Your task to perform on an android device: Open Wikipedia Image 0: 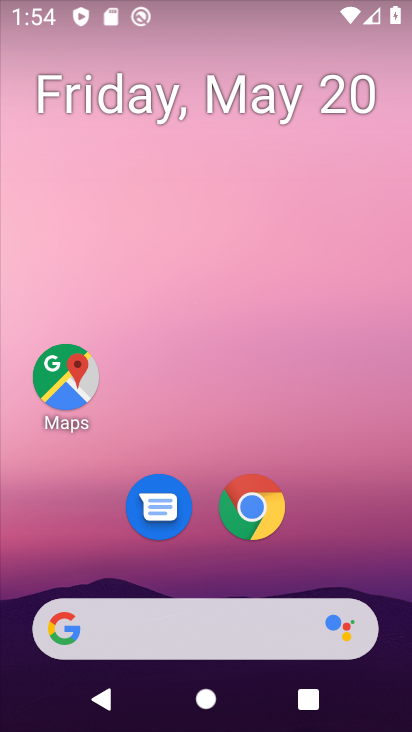
Step 0: click (252, 511)
Your task to perform on an android device: Open Wikipedia Image 1: 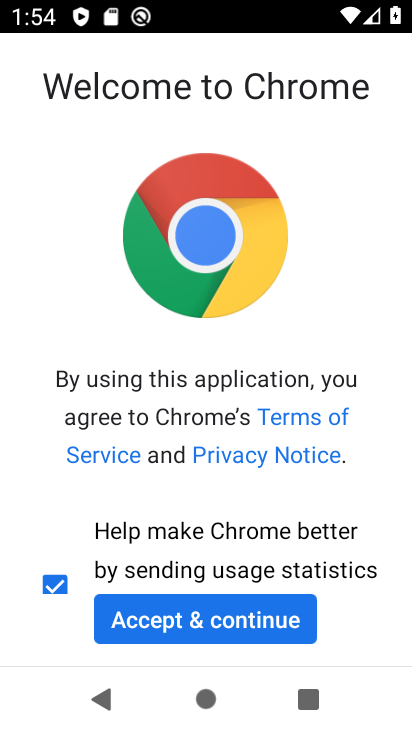
Step 1: click (178, 625)
Your task to perform on an android device: Open Wikipedia Image 2: 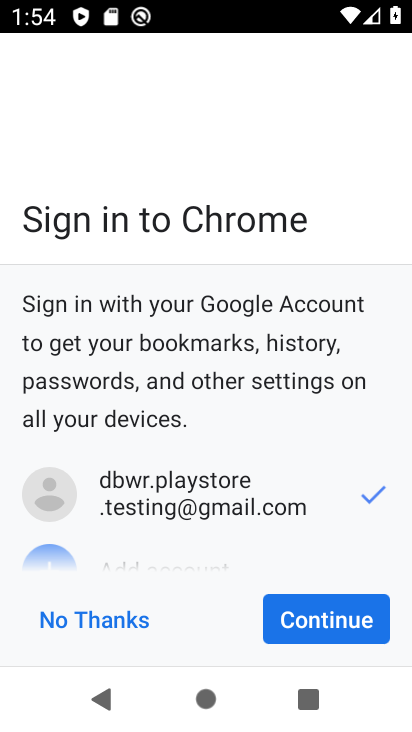
Step 2: click (349, 623)
Your task to perform on an android device: Open Wikipedia Image 3: 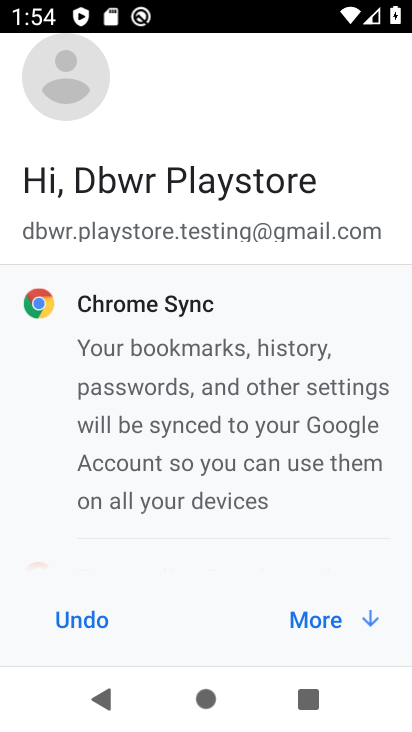
Step 3: click (349, 617)
Your task to perform on an android device: Open Wikipedia Image 4: 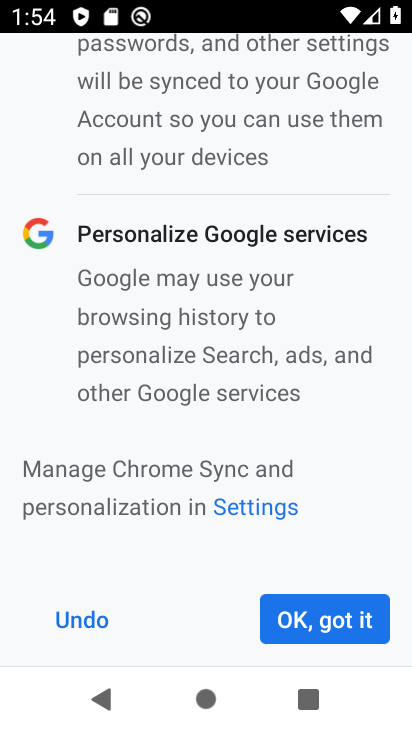
Step 4: click (349, 614)
Your task to perform on an android device: Open Wikipedia Image 5: 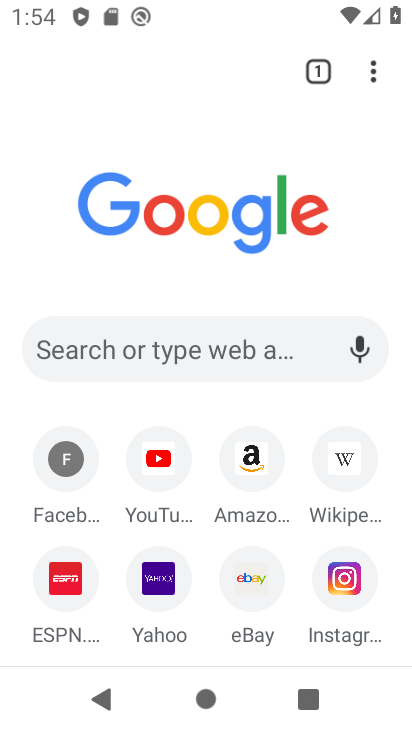
Step 5: click (342, 477)
Your task to perform on an android device: Open Wikipedia Image 6: 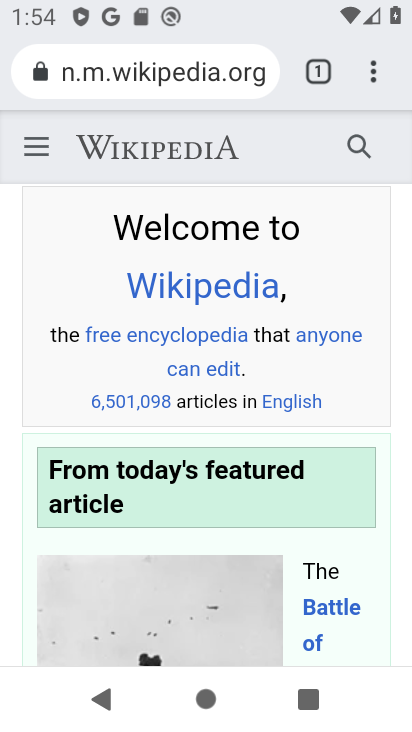
Step 6: task complete